Your task to perform on an android device: open chrome and create a bookmark for the current page Image 0: 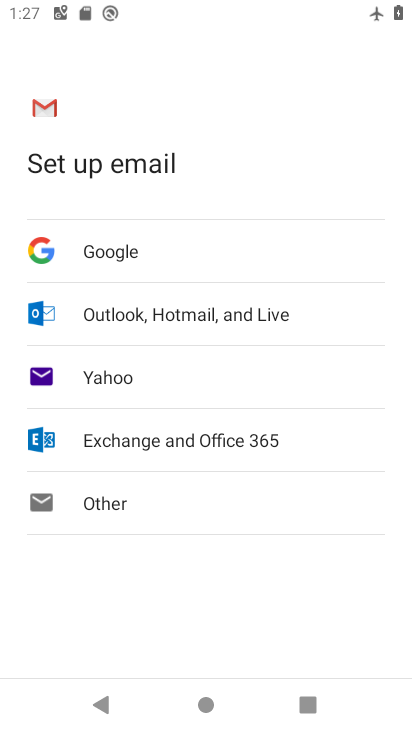
Step 0: press home button
Your task to perform on an android device: open chrome and create a bookmark for the current page Image 1: 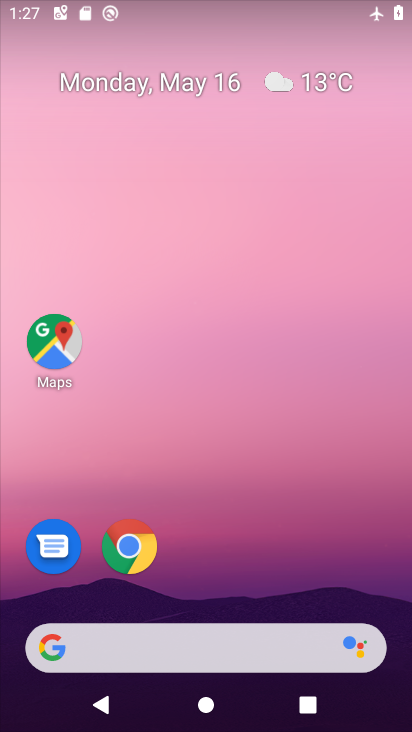
Step 1: click (129, 548)
Your task to perform on an android device: open chrome and create a bookmark for the current page Image 2: 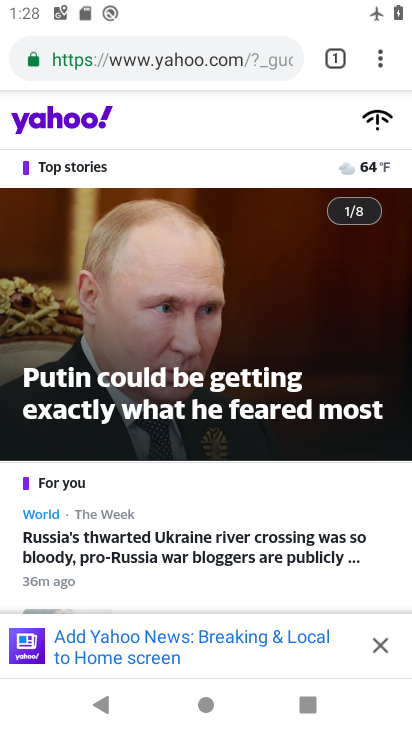
Step 2: click (378, 63)
Your task to perform on an android device: open chrome and create a bookmark for the current page Image 3: 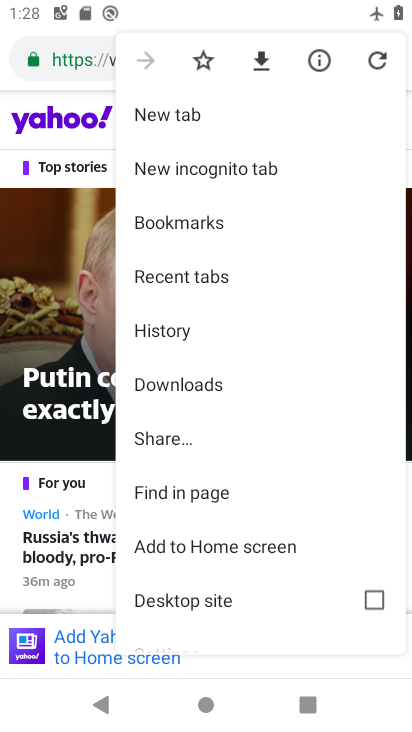
Step 3: click (202, 57)
Your task to perform on an android device: open chrome and create a bookmark for the current page Image 4: 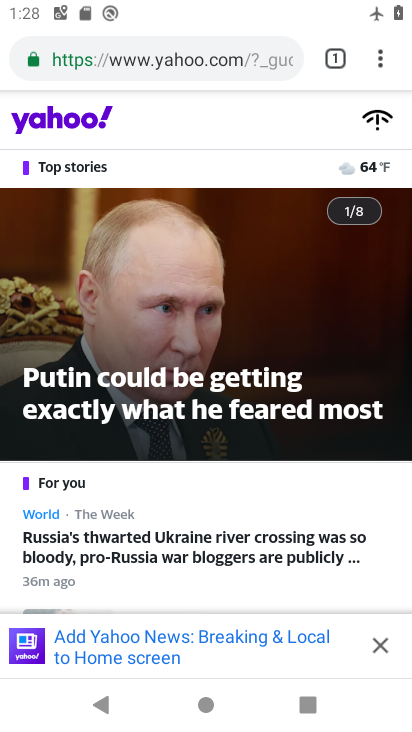
Step 4: task complete